Your task to perform on an android device: Turn on the flashlight Image 0: 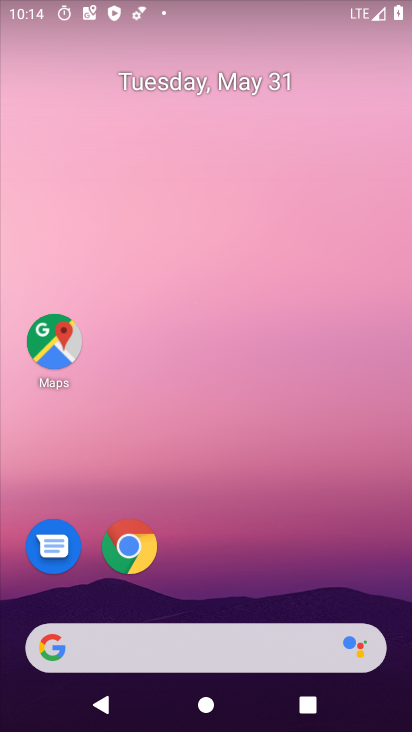
Step 0: drag from (229, 540) to (266, 99)
Your task to perform on an android device: Turn on the flashlight Image 1: 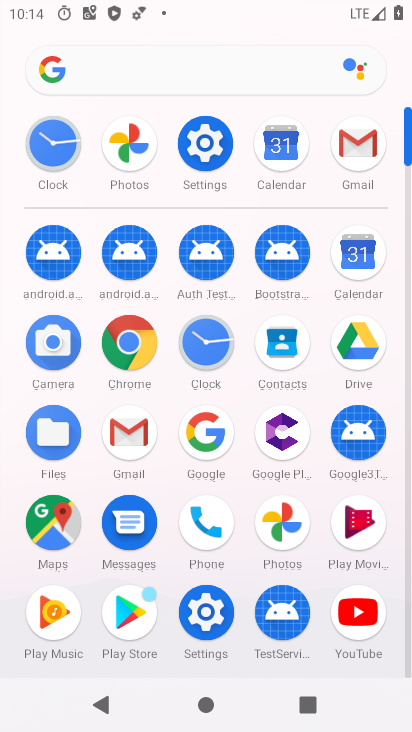
Step 1: click (210, 131)
Your task to perform on an android device: Turn on the flashlight Image 2: 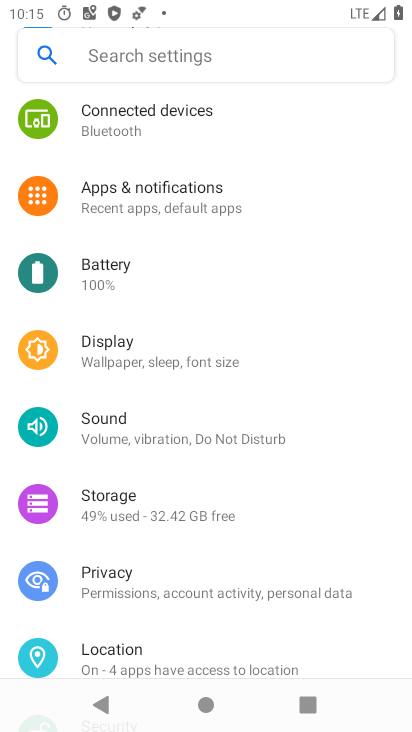
Step 2: click (220, 345)
Your task to perform on an android device: Turn on the flashlight Image 3: 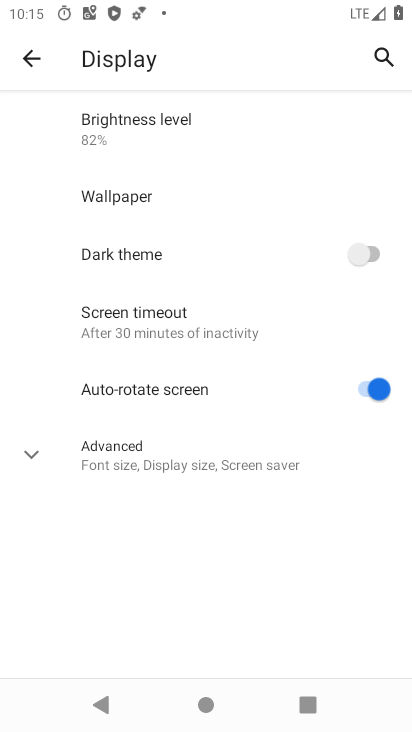
Step 3: click (36, 457)
Your task to perform on an android device: Turn on the flashlight Image 4: 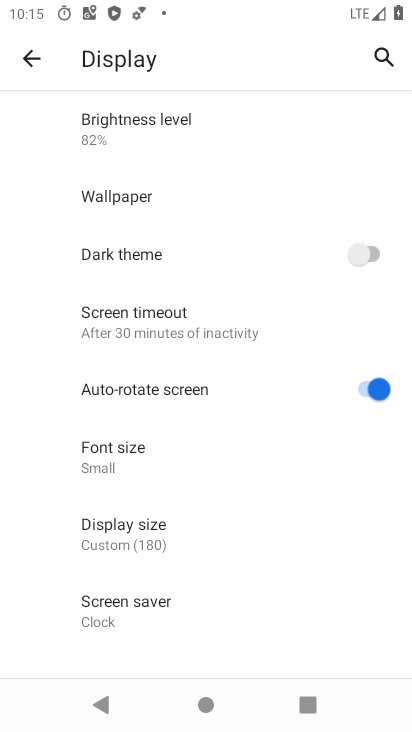
Step 4: task complete